Your task to perform on an android device: Go to wifi settings Image 0: 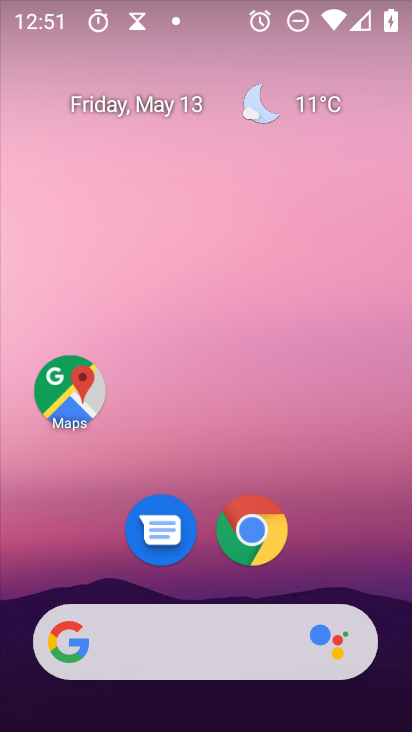
Step 0: press home button
Your task to perform on an android device: Go to wifi settings Image 1: 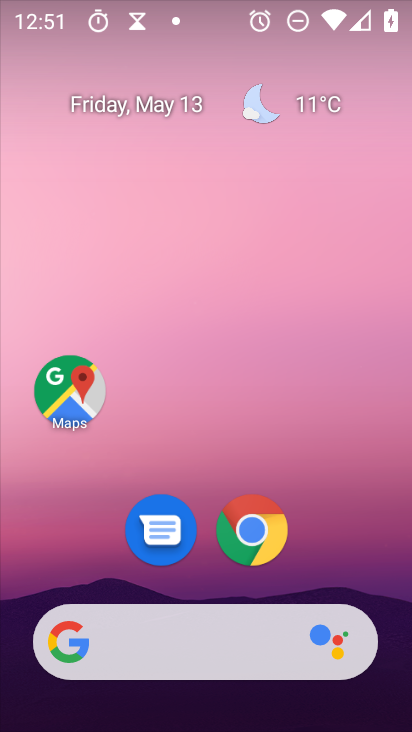
Step 1: drag from (162, 646) to (290, 130)
Your task to perform on an android device: Go to wifi settings Image 2: 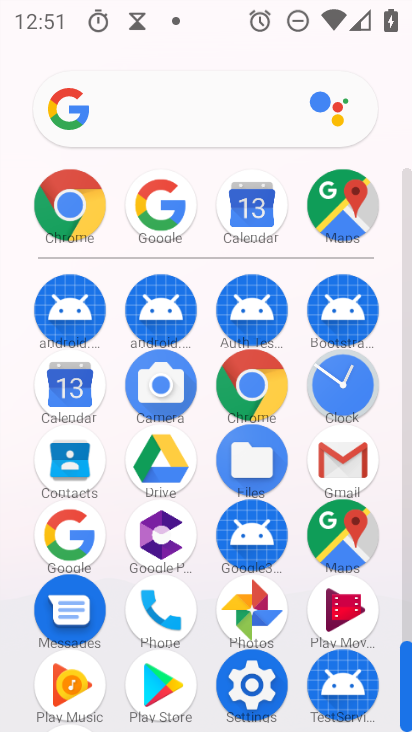
Step 2: click (242, 676)
Your task to perform on an android device: Go to wifi settings Image 3: 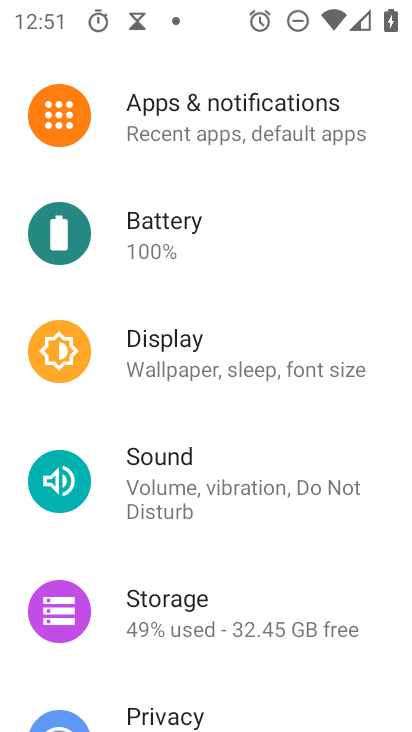
Step 3: drag from (303, 226) to (249, 637)
Your task to perform on an android device: Go to wifi settings Image 4: 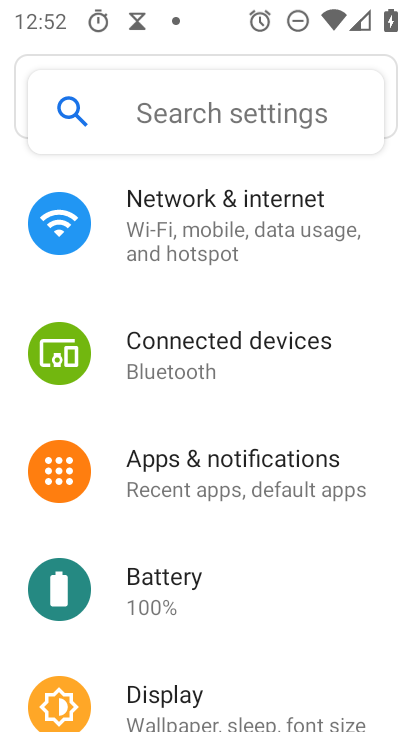
Step 4: click (244, 204)
Your task to perform on an android device: Go to wifi settings Image 5: 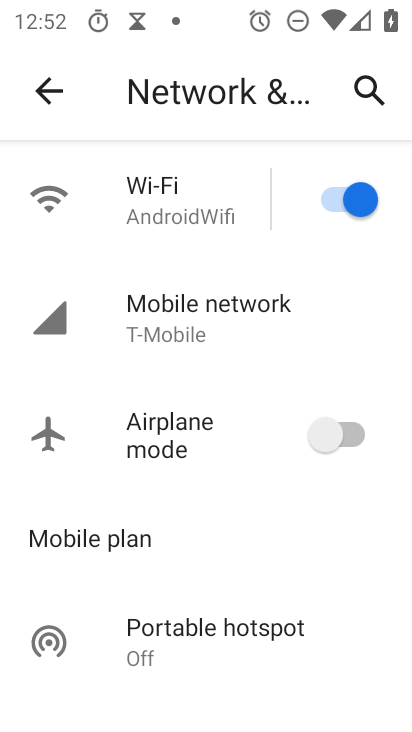
Step 5: click (189, 215)
Your task to perform on an android device: Go to wifi settings Image 6: 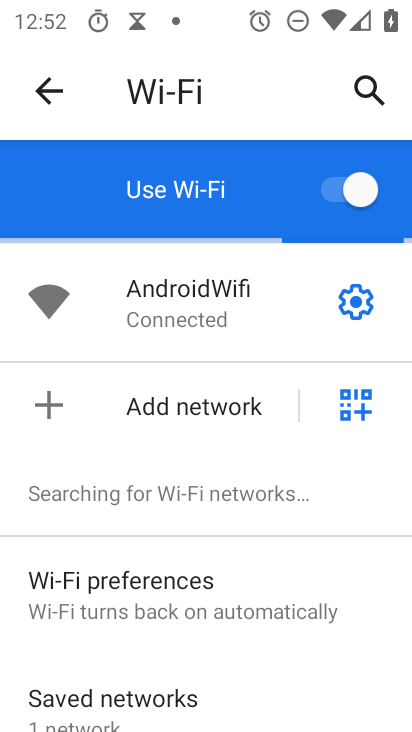
Step 6: task complete